Your task to perform on an android device: Open Amazon Image 0: 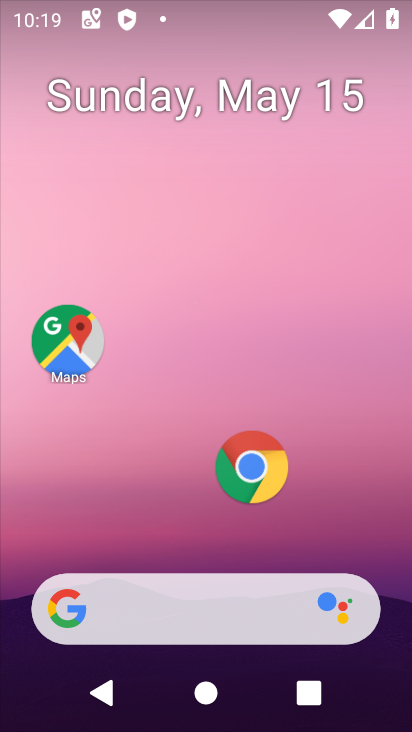
Step 0: drag from (194, 531) to (243, 33)
Your task to perform on an android device: Open Amazon Image 1: 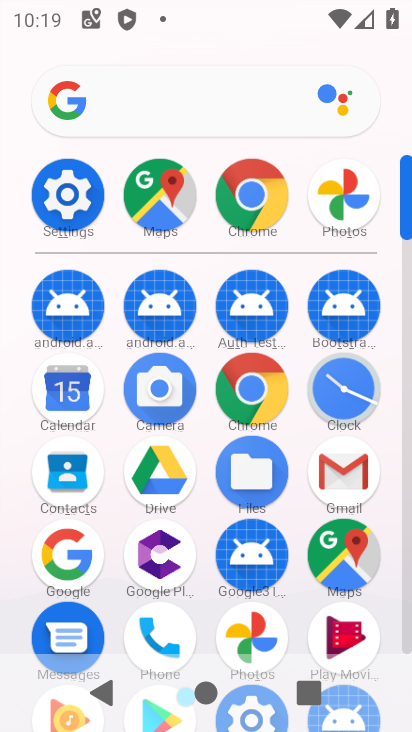
Step 1: click (268, 198)
Your task to perform on an android device: Open Amazon Image 2: 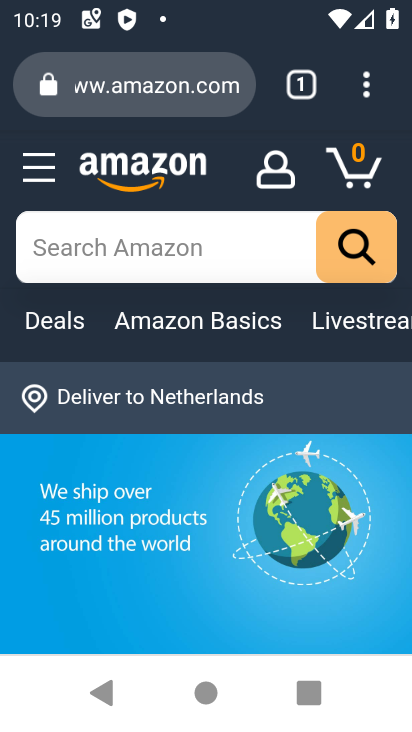
Step 2: task complete